Your task to perform on an android device: change timer sound Image 0: 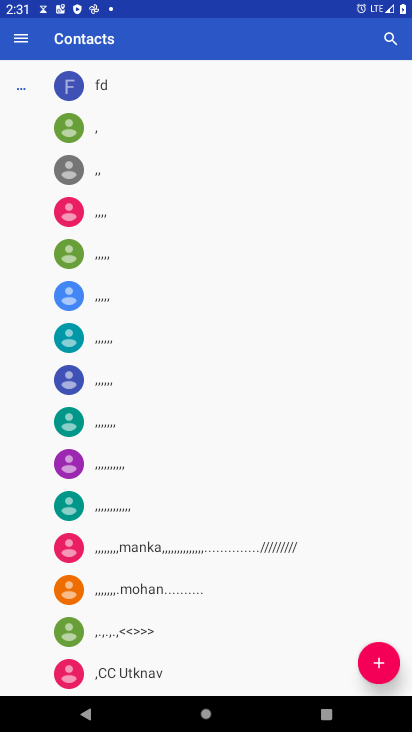
Step 0: press home button
Your task to perform on an android device: change timer sound Image 1: 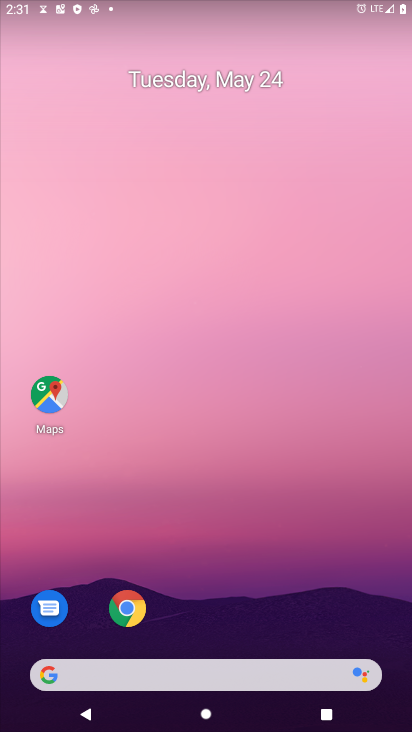
Step 1: drag from (258, 696) to (214, 91)
Your task to perform on an android device: change timer sound Image 2: 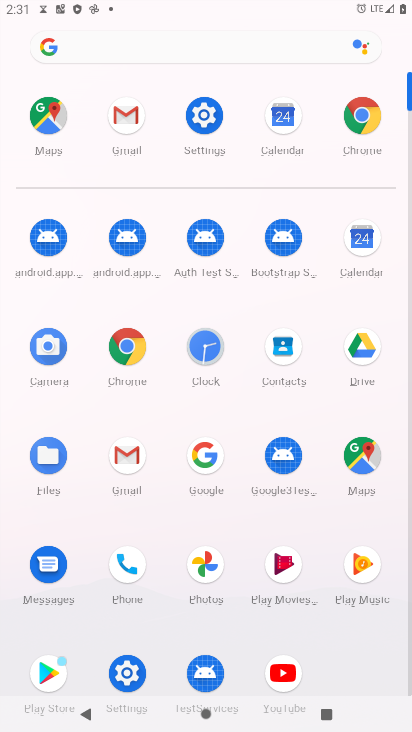
Step 2: click (213, 119)
Your task to perform on an android device: change timer sound Image 3: 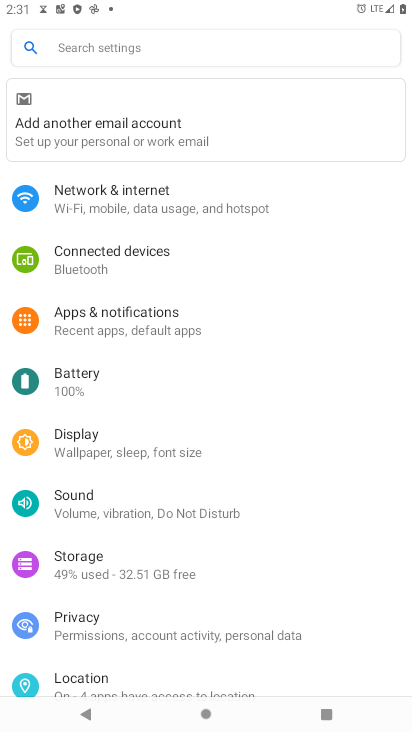
Step 3: click (104, 46)
Your task to perform on an android device: change timer sound Image 4: 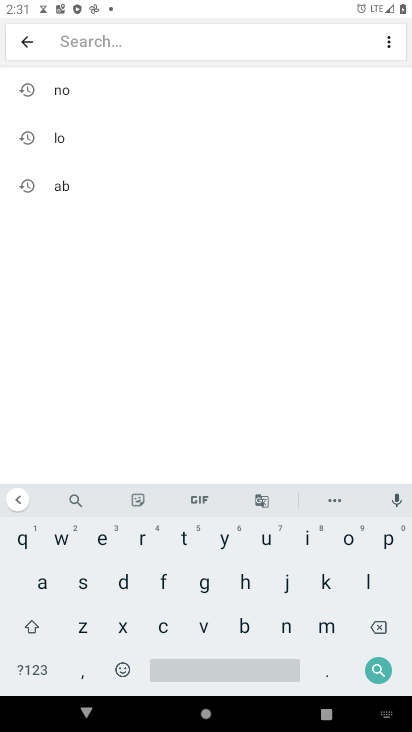
Step 4: click (88, 592)
Your task to perform on an android device: change timer sound Image 5: 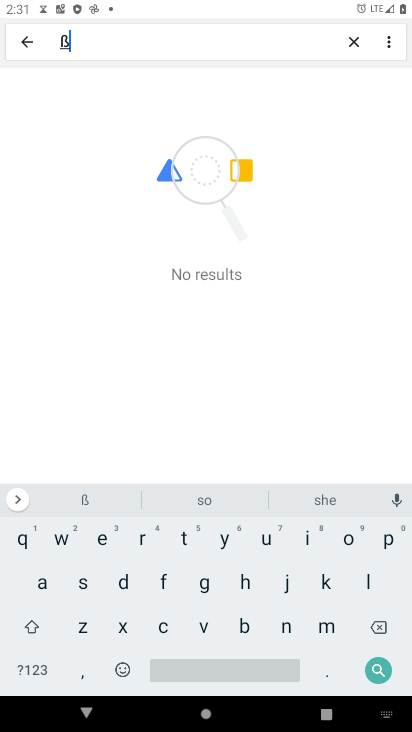
Step 5: click (342, 536)
Your task to perform on an android device: change timer sound Image 6: 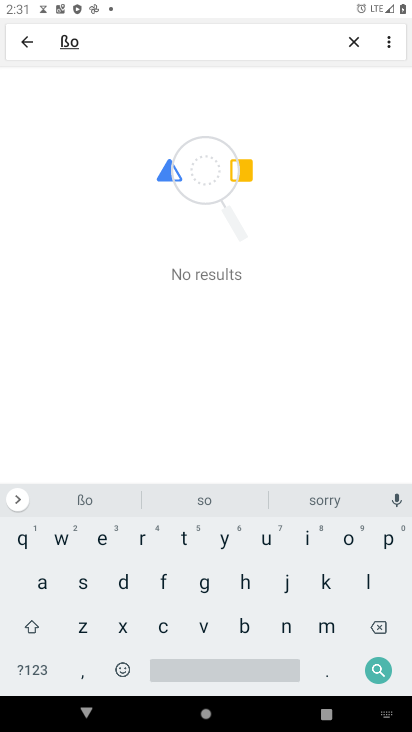
Step 6: click (354, 42)
Your task to perform on an android device: change timer sound Image 7: 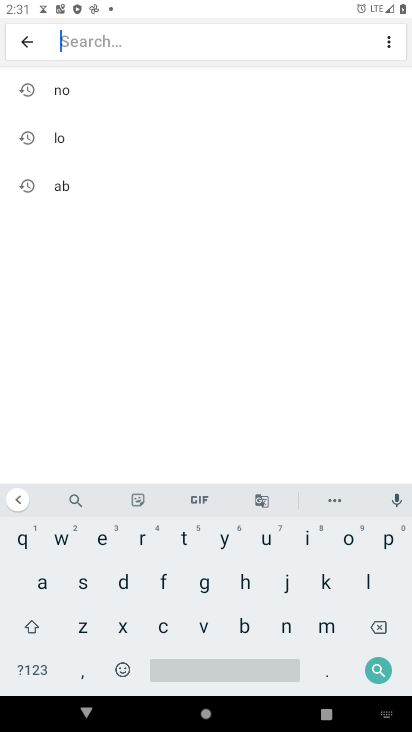
Step 7: click (80, 579)
Your task to perform on an android device: change timer sound Image 8: 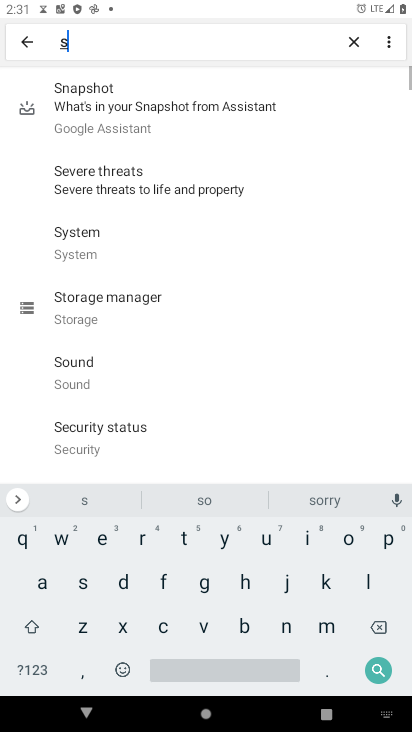
Step 8: click (347, 546)
Your task to perform on an android device: change timer sound Image 9: 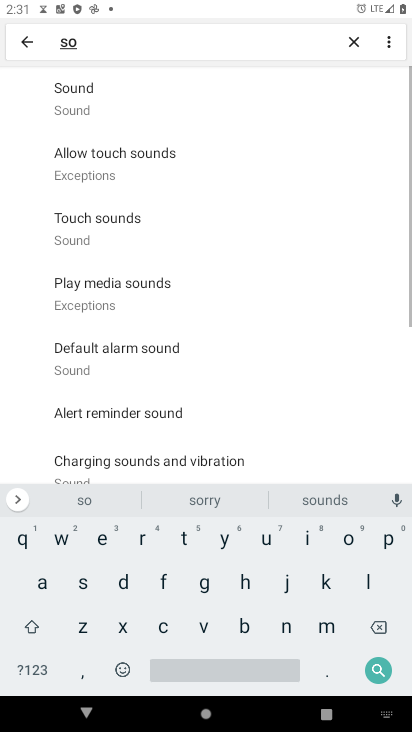
Step 9: click (86, 82)
Your task to perform on an android device: change timer sound Image 10: 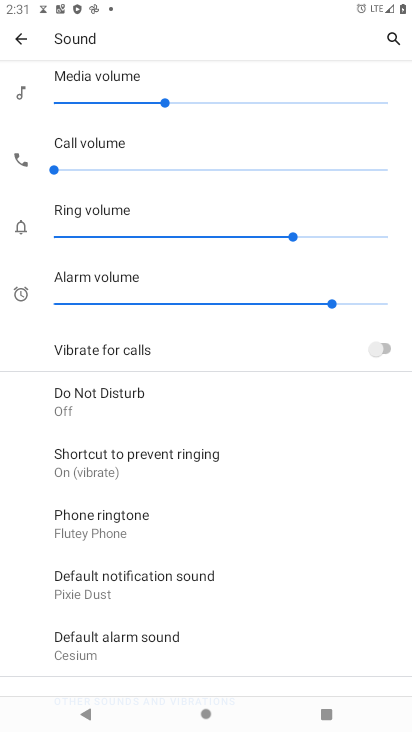
Step 10: task complete